Your task to perform on an android device: move an email to a new category in the gmail app Image 0: 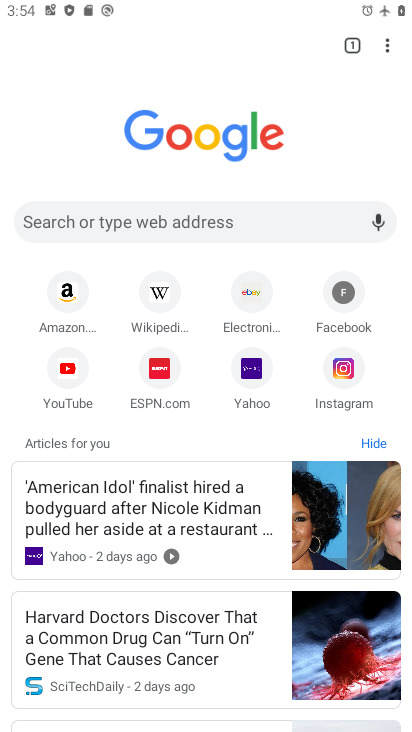
Step 0: press home button
Your task to perform on an android device: move an email to a new category in the gmail app Image 1: 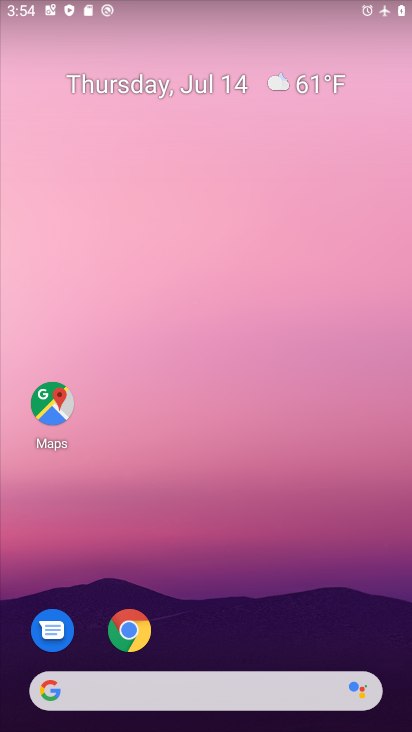
Step 1: drag from (322, 611) to (282, 2)
Your task to perform on an android device: move an email to a new category in the gmail app Image 2: 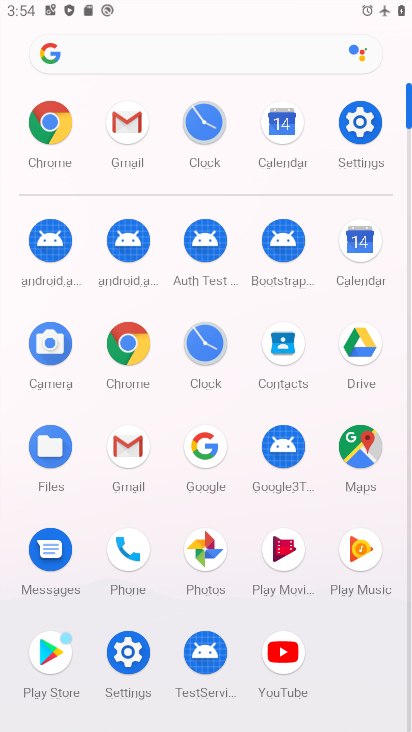
Step 2: click (128, 165)
Your task to perform on an android device: move an email to a new category in the gmail app Image 3: 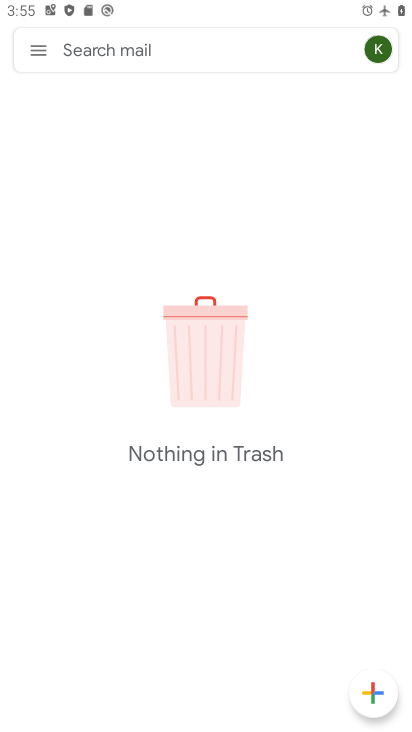
Step 3: click (41, 56)
Your task to perform on an android device: move an email to a new category in the gmail app Image 4: 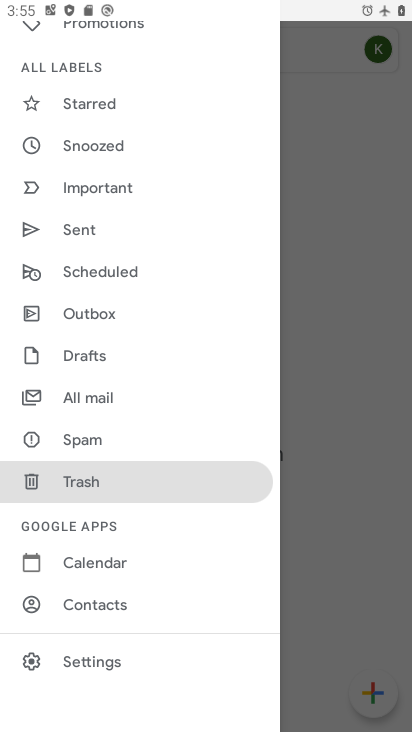
Step 4: click (70, 395)
Your task to perform on an android device: move an email to a new category in the gmail app Image 5: 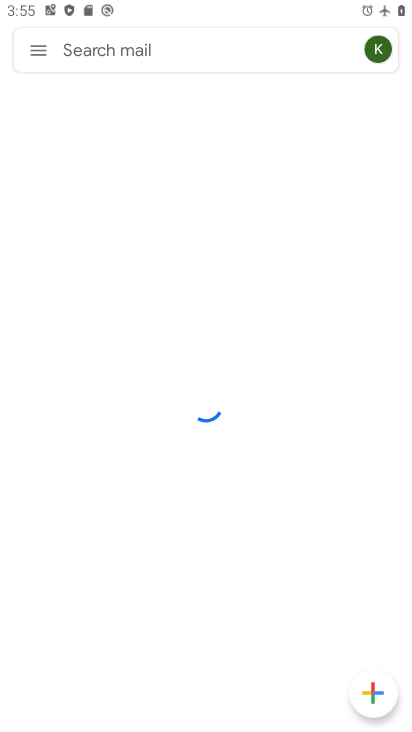
Step 5: task complete